Your task to perform on an android device: turn on the 12-hour format for clock Image 0: 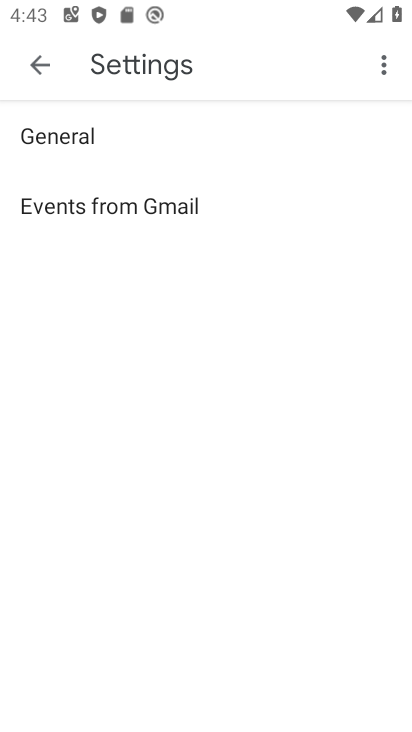
Step 0: press home button
Your task to perform on an android device: turn on the 12-hour format for clock Image 1: 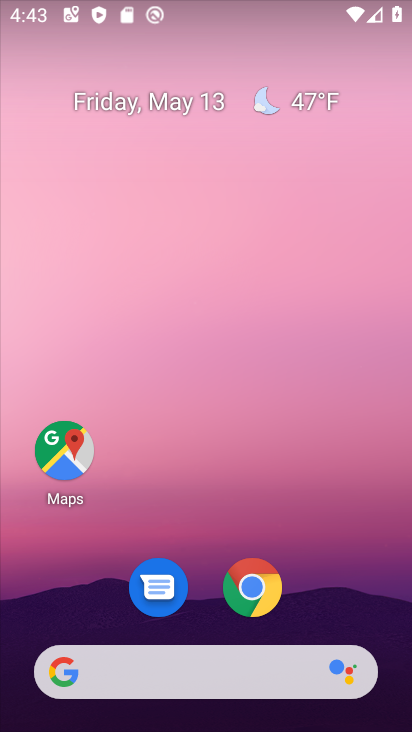
Step 1: drag from (313, 608) to (282, 192)
Your task to perform on an android device: turn on the 12-hour format for clock Image 2: 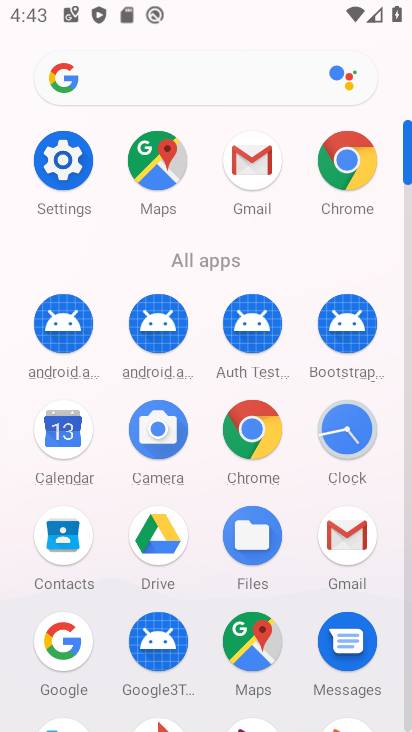
Step 2: click (339, 437)
Your task to perform on an android device: turn on the 12-hour format for clock Image 3: 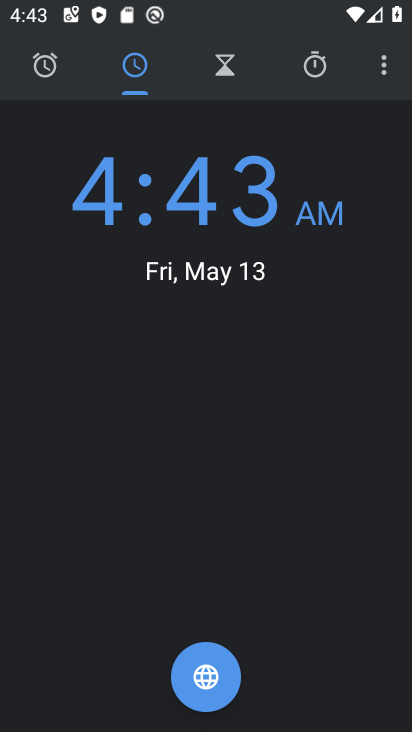
Step 3: click (390, 71)
Your task to perform on an android device: turn on the 12-hour format for clock Image 4: 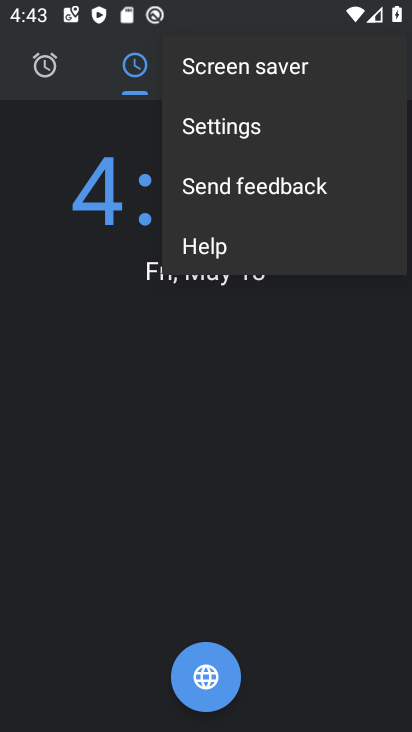
Step 4: click (261, 142)
Your task to perform on an android device: turn on the 12-hour format for clock Image 5: 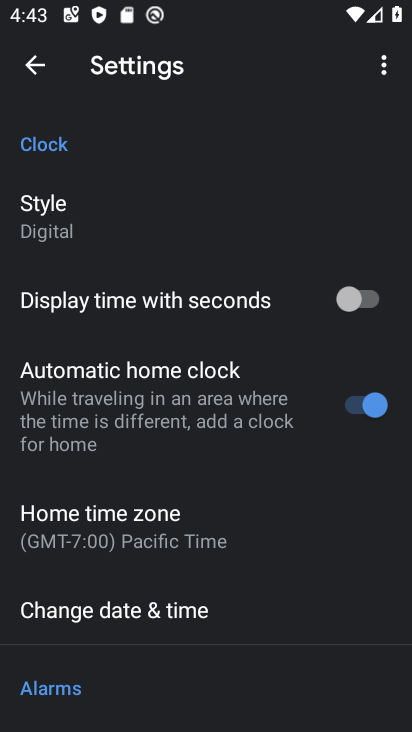
Step 5: click (129, 618)
Your task to perform on an android device: turn on the 12-hour format for clock Image 6: 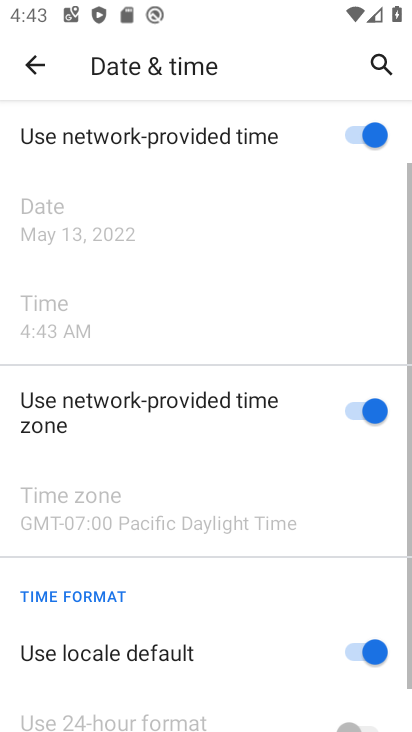
Step 6: drag from (259, 595) to (273, 181)
Your task to perform on an android device: turn on the 12-hour format for clock Image 7: 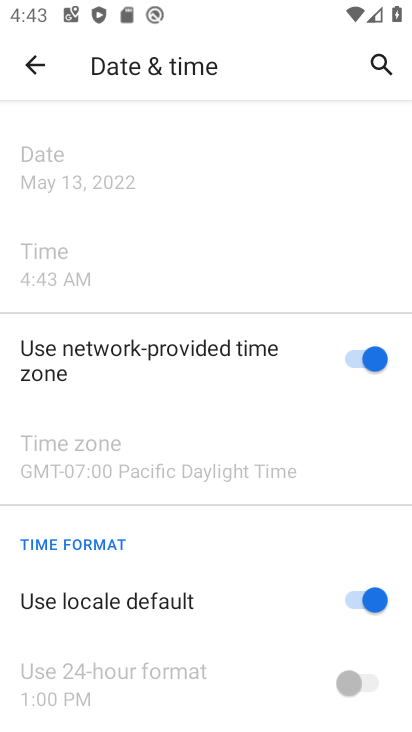
Step 7: click (352, 602)
Your task to perform on an android device: turn on the 12-hour format for clock Image 8: 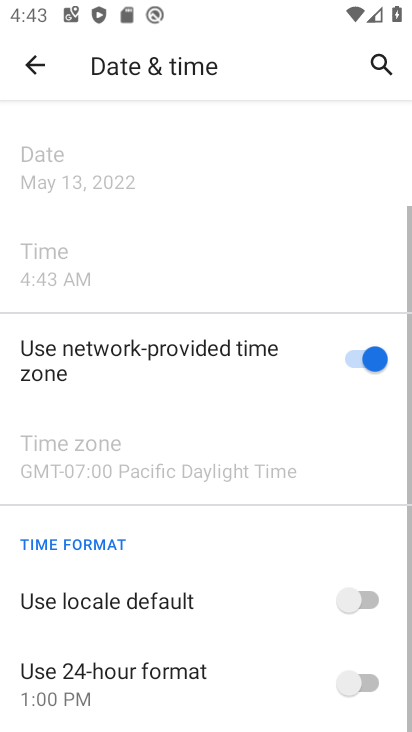
Step 8: click (382, 592)
Your task to perform on an android device: turn on the 12-hour format for clock Image 9: 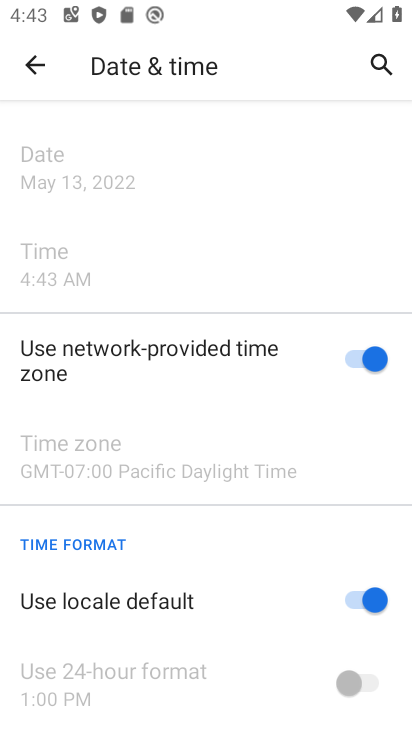
Step 9: task complete